Your task to perform on an android device: turn on javascript in the chrome app Image 0: 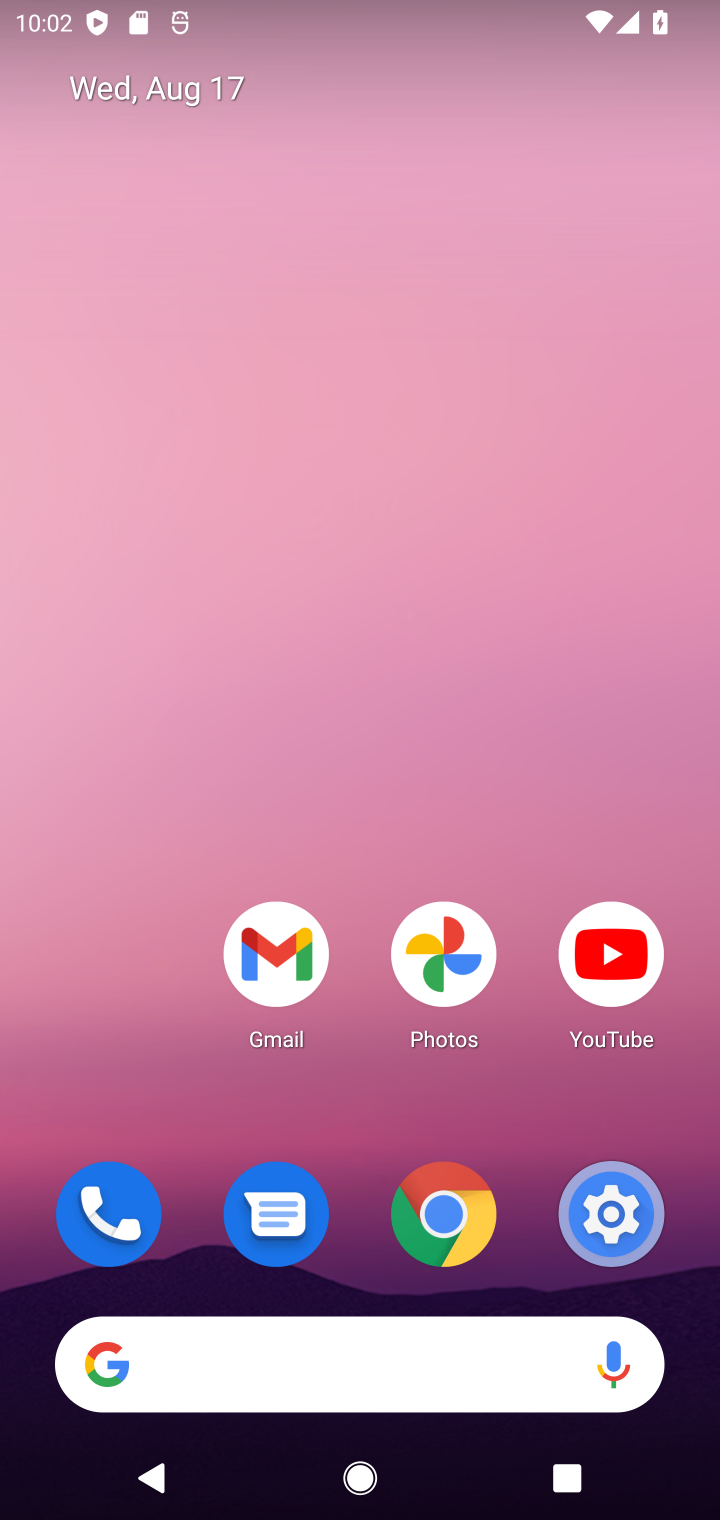
Step 0: click (447, 1220)
Your task to perform on an android device: turn on javascript in the chrome app Image 1: 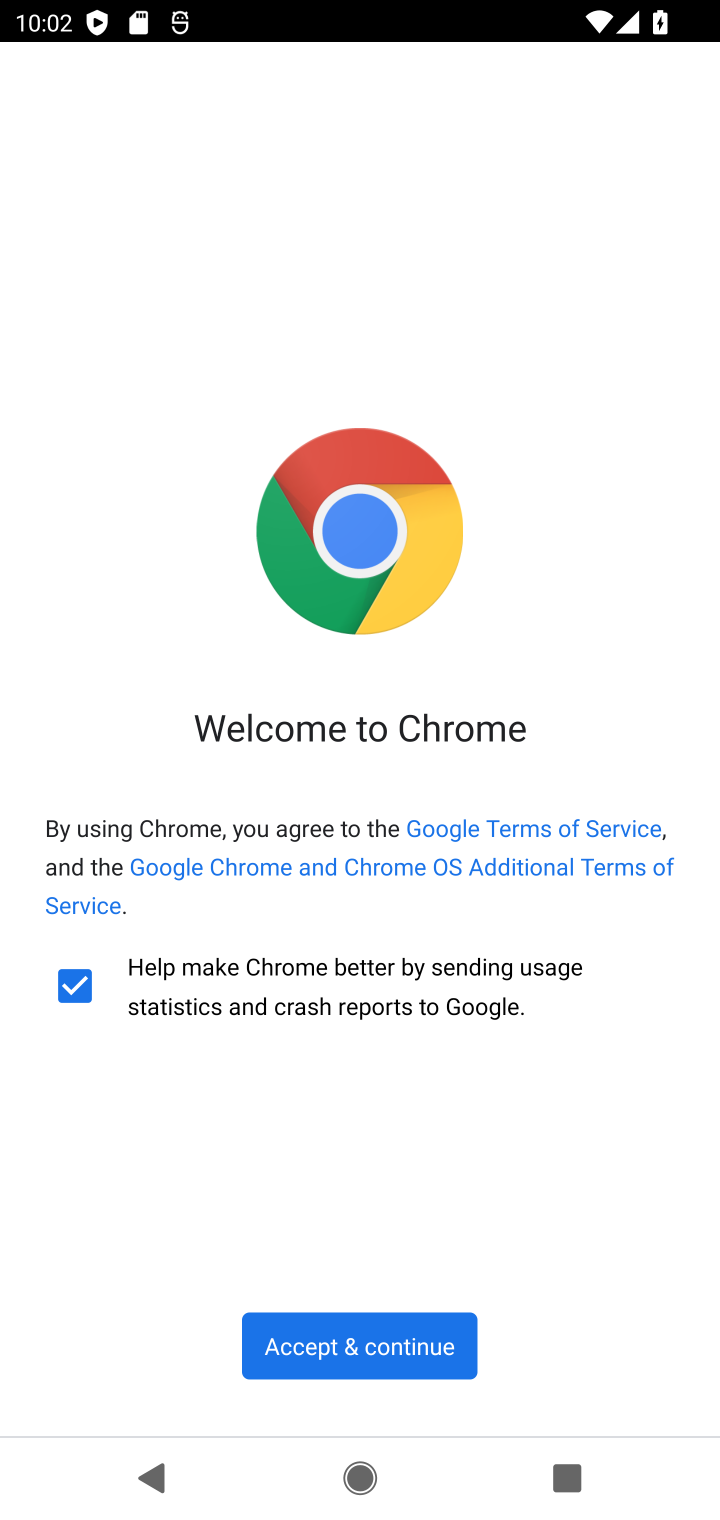
Step 1: click (364, 1340)
Your task to perform on an android device: turn on javascript in the chrome app Image 2: 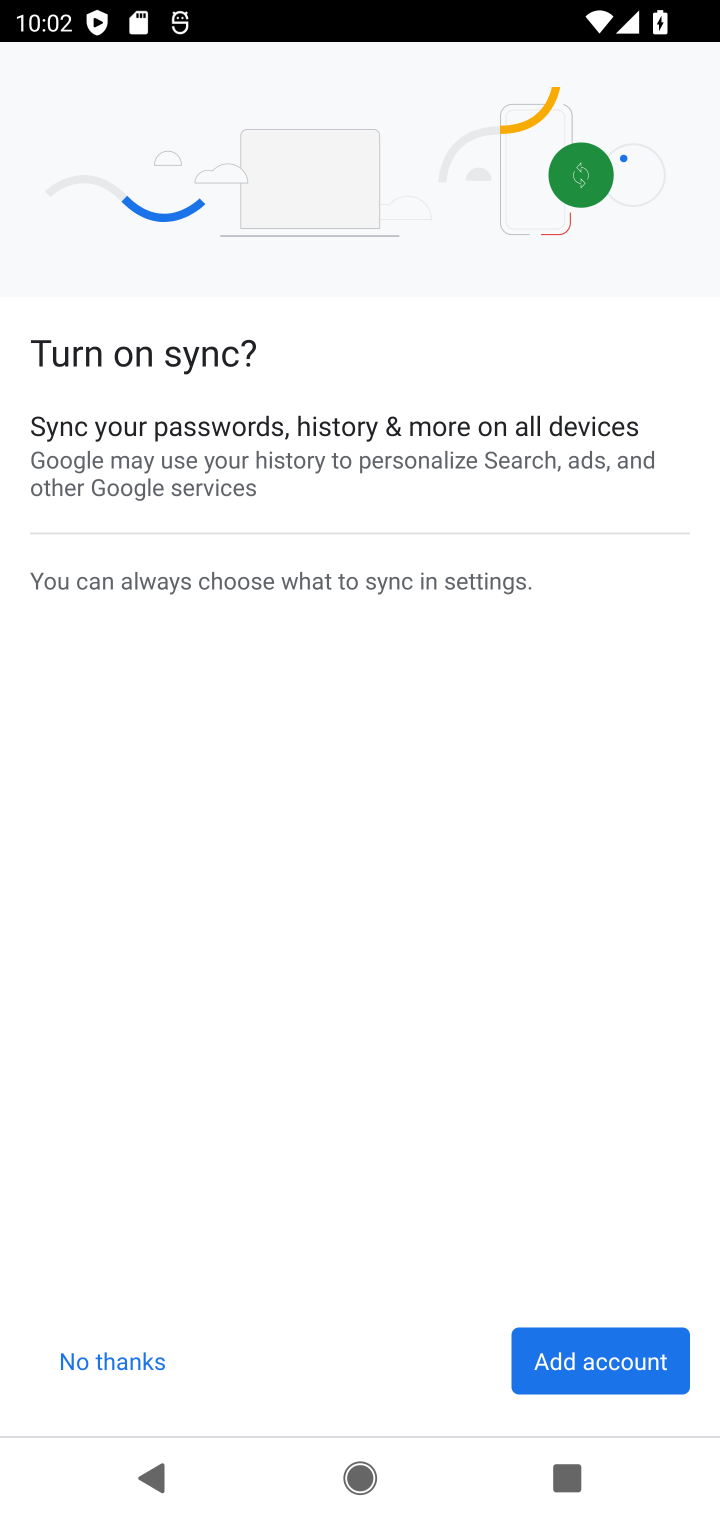
Step 2: click (592, 1350)
Your task to perform on an android device: turn on javascript in the chrome app Image 3: 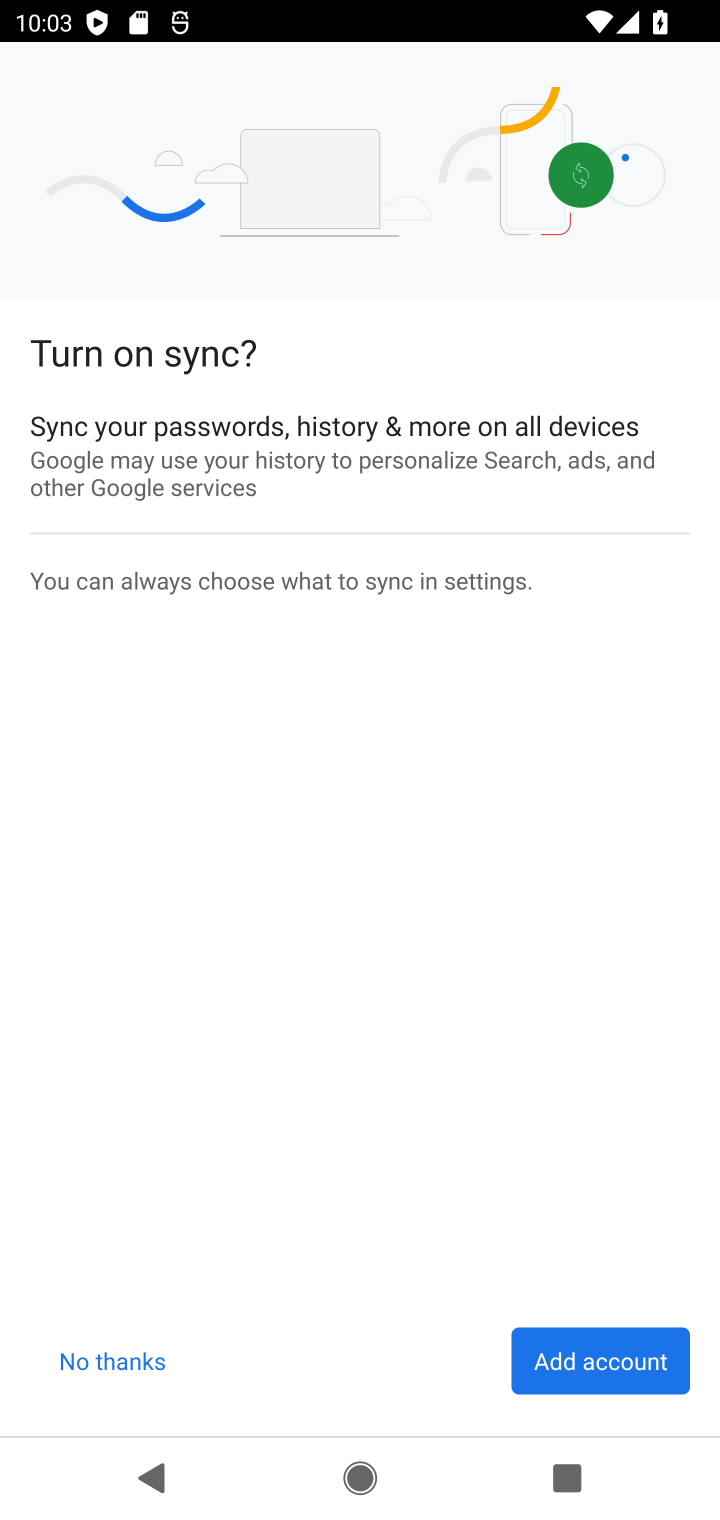
Step 3: click (581, 1365)
Your task to perform on an android device: turn on javascript in the chrome app Image 4: 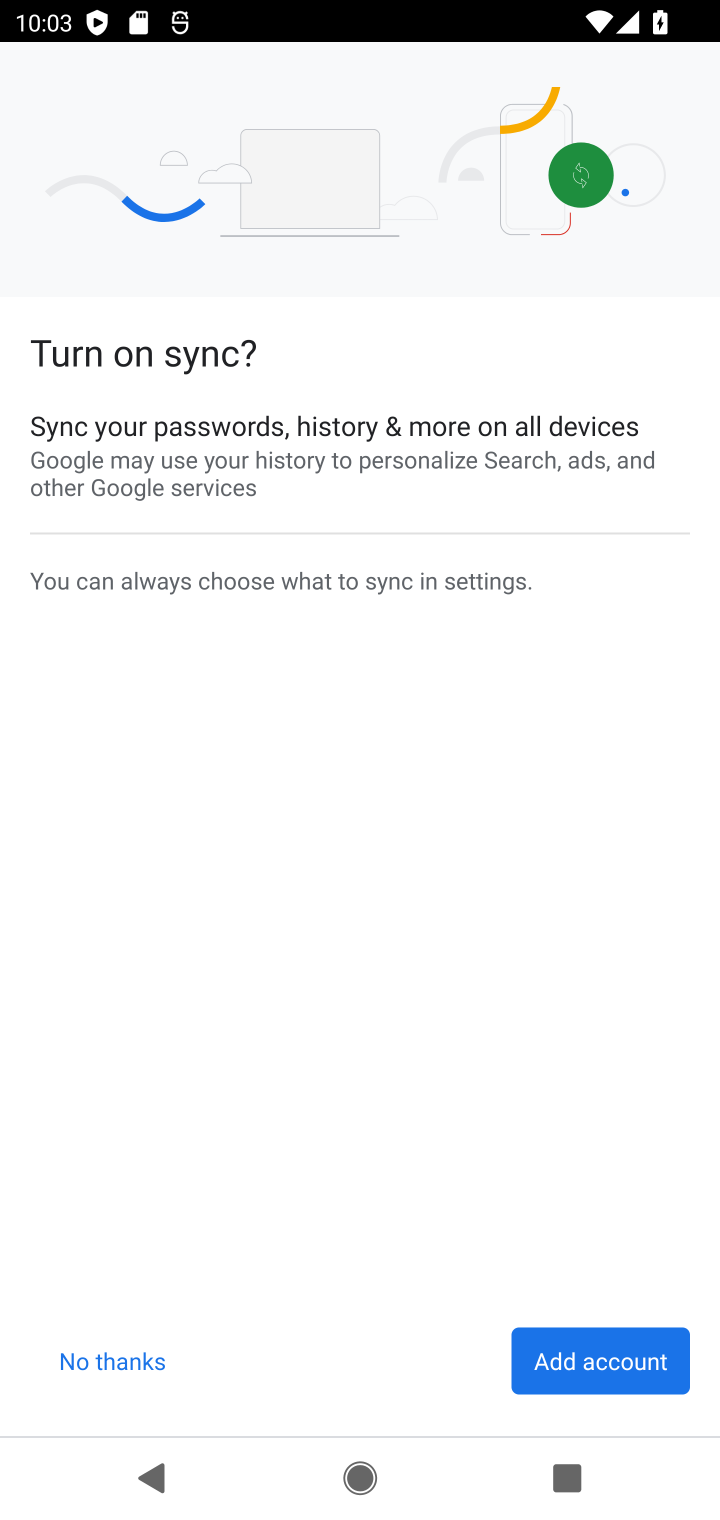
Step 4: click (130, 1371)
Your task to perform on an android device: turn on javascript in the chrome app Image 5: 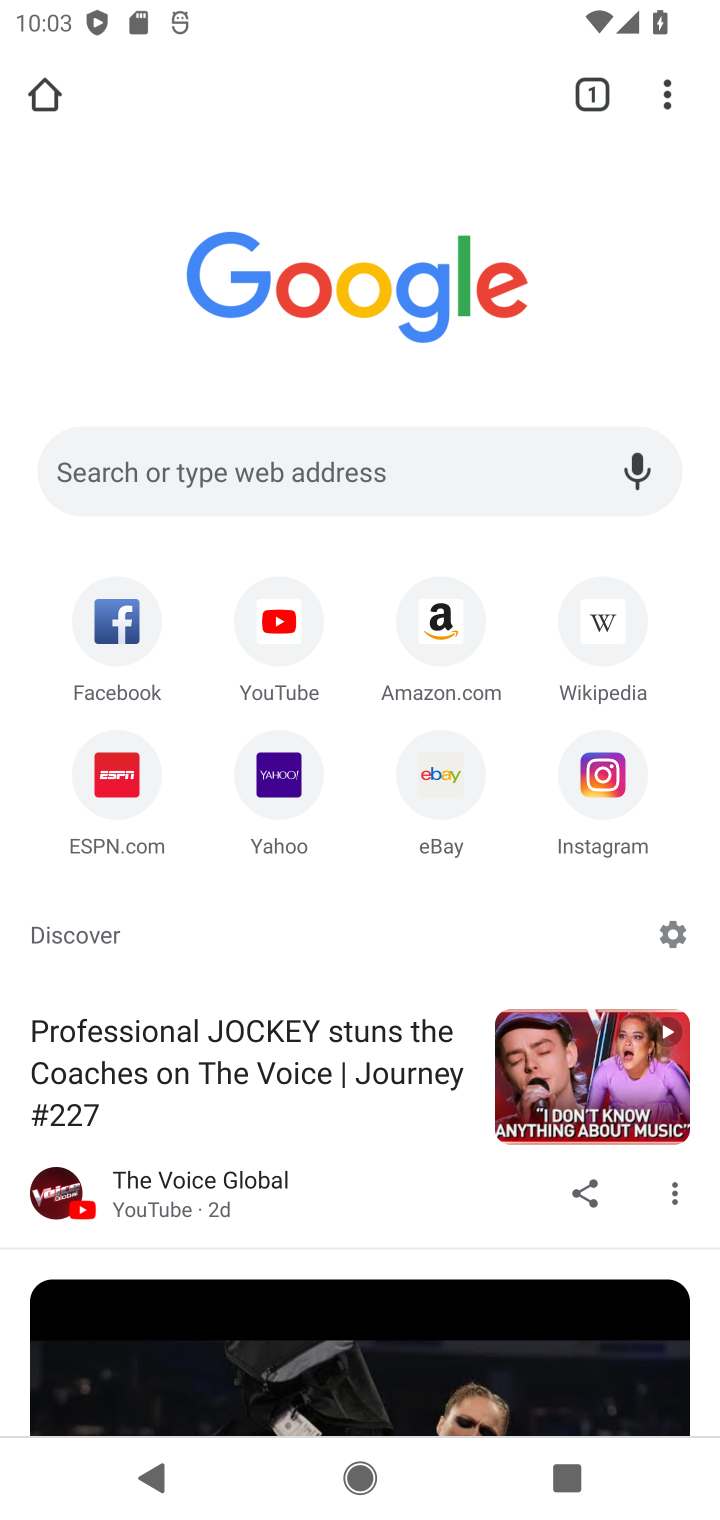
Step 5: click (685, 102)
Your task to perform on an android device: turn on javascript in the chrome app Image 6: 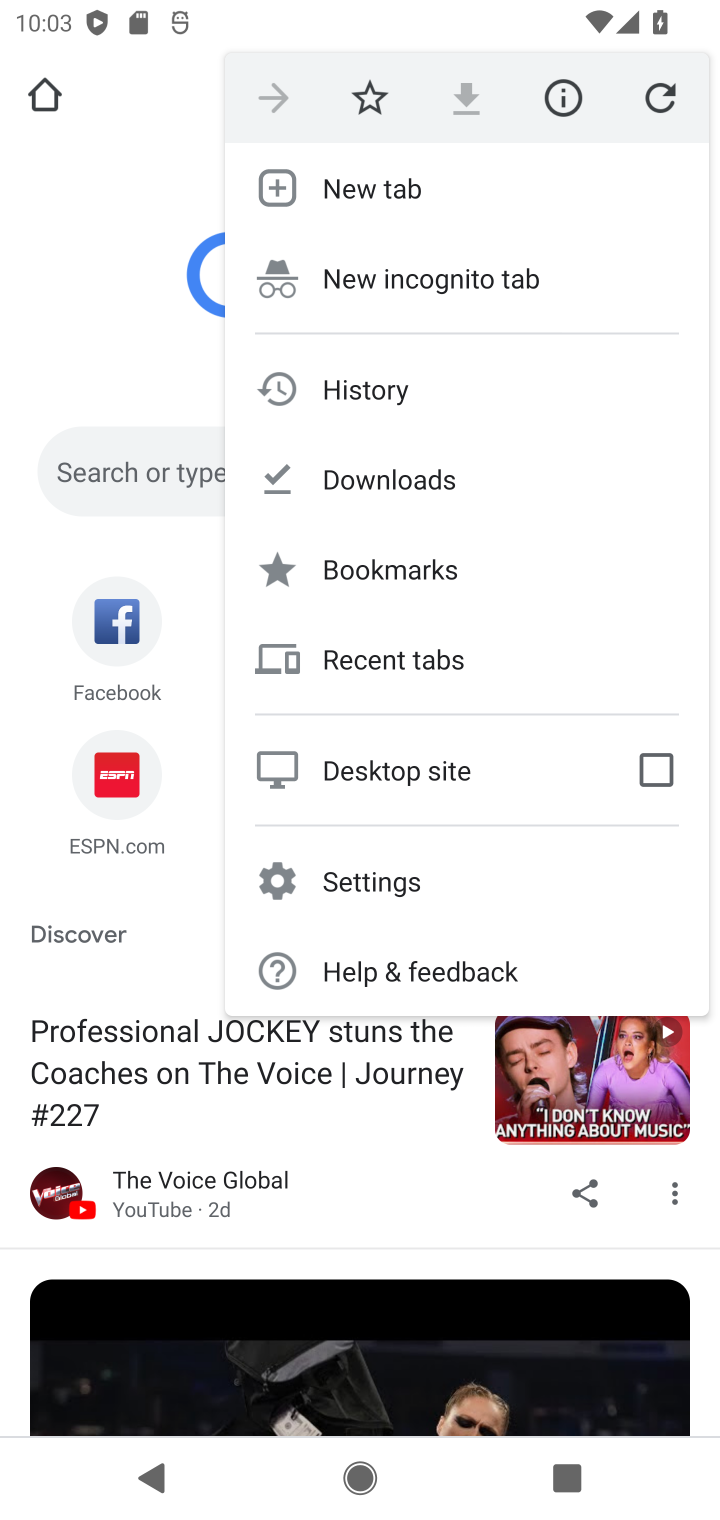
Step 6: click (371, 880)
Your task to perform on an android device: turn on javascript in the chrome app Image 7: 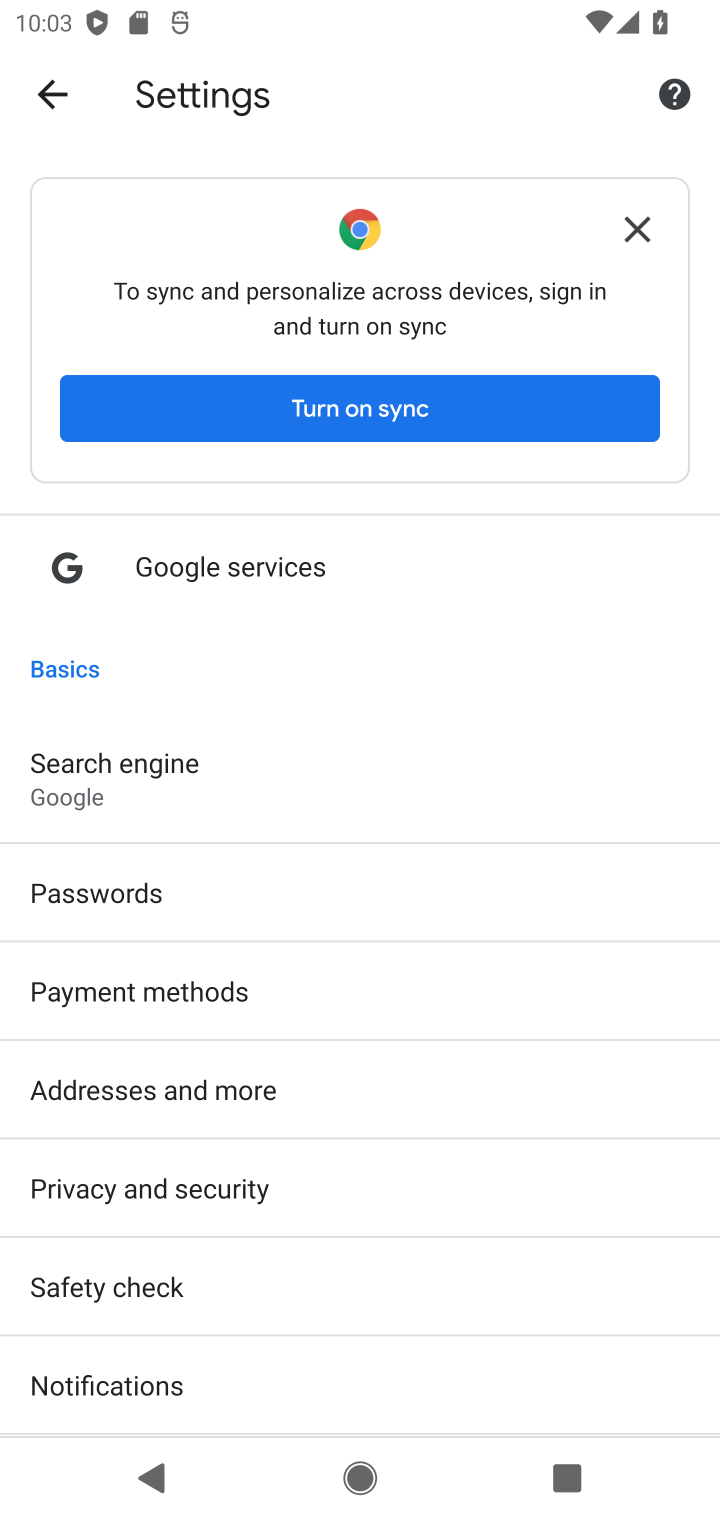
Step 7: drag from (193, 1328) to (290, 1125)
Your task to perform on an android device: turn on javascript in the chrome app Image 8: 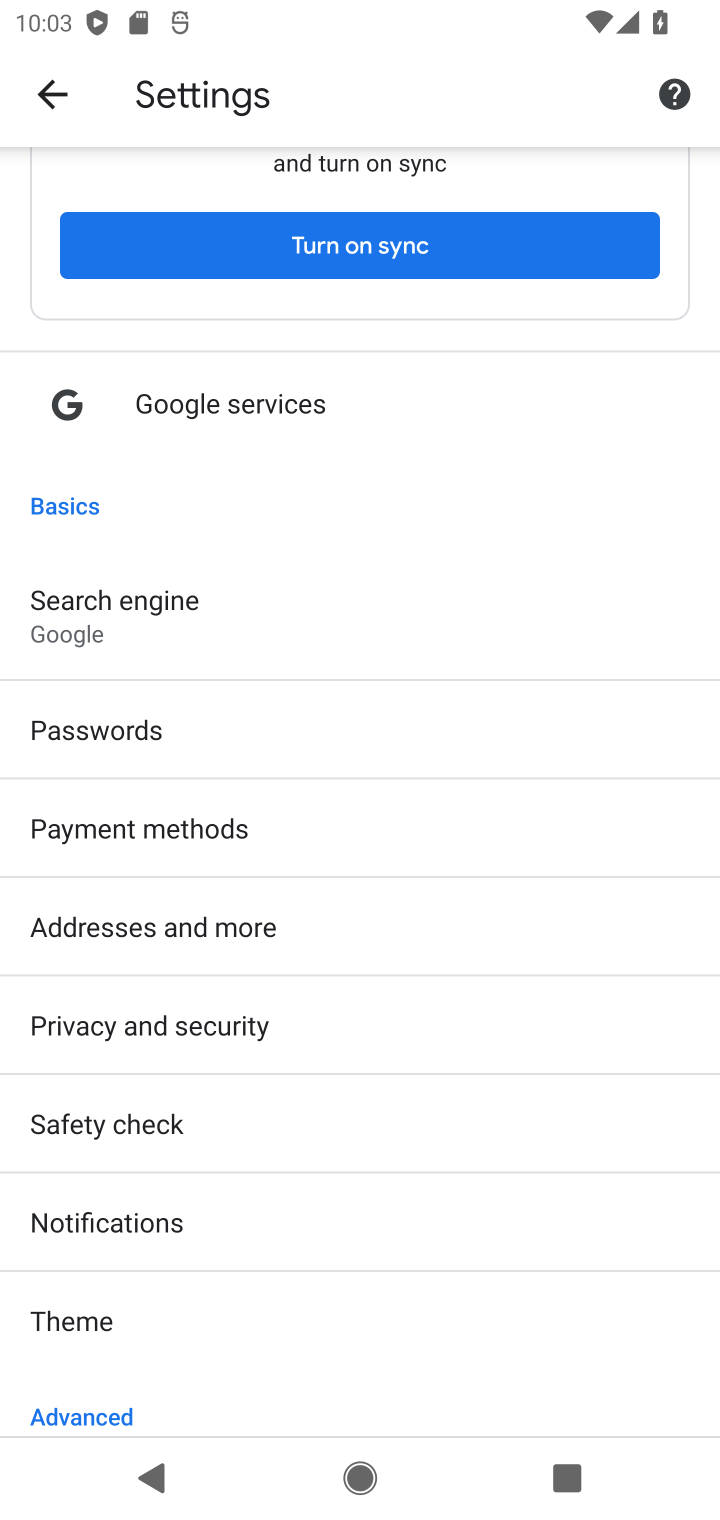
Step 8: drag from (290, 1278) to (411, 1047)
Your task to perform on an android device: turn on javascript in the chrome app Image 9: 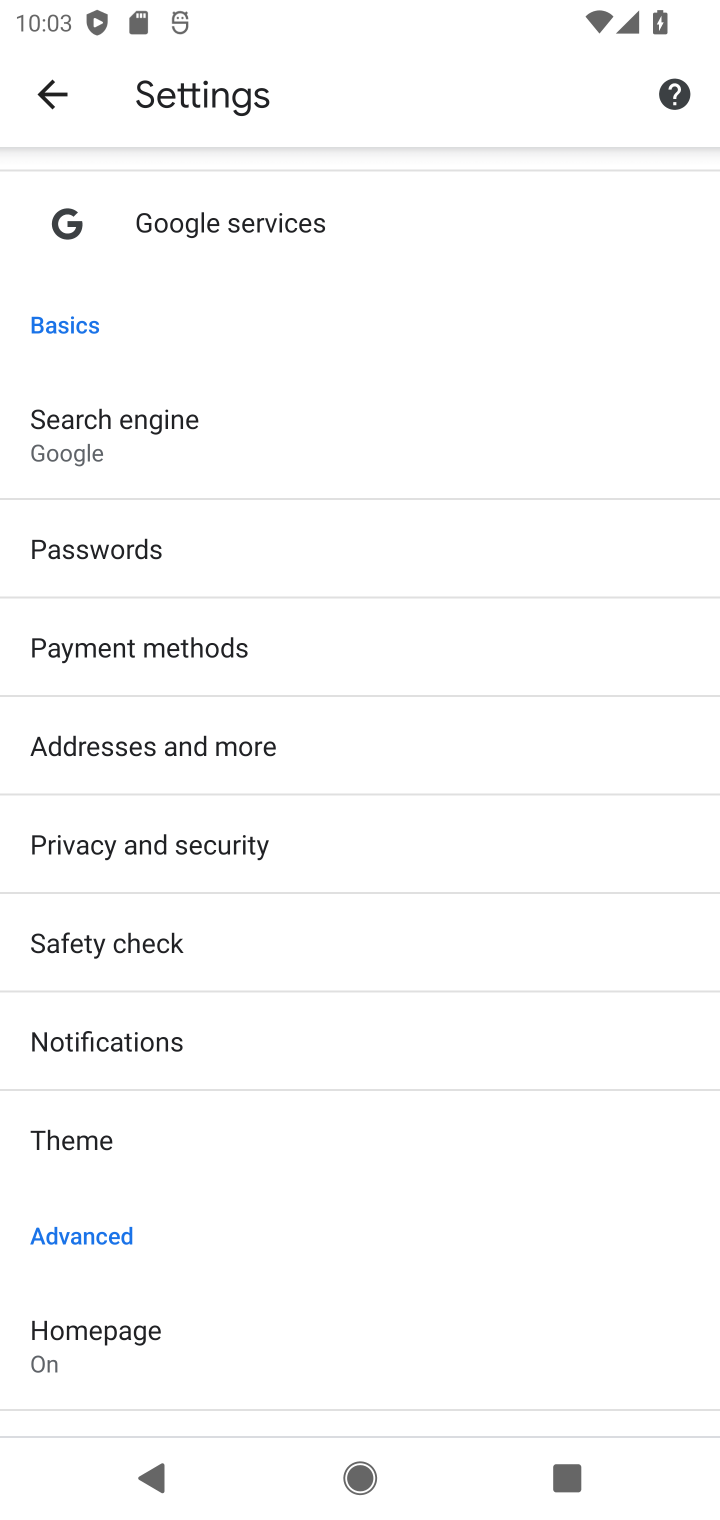
Step 9: drag from (245, 1284) to (471, 1006)
Your task to perform on an android device: turn on javascript in the chrome app Image 10: 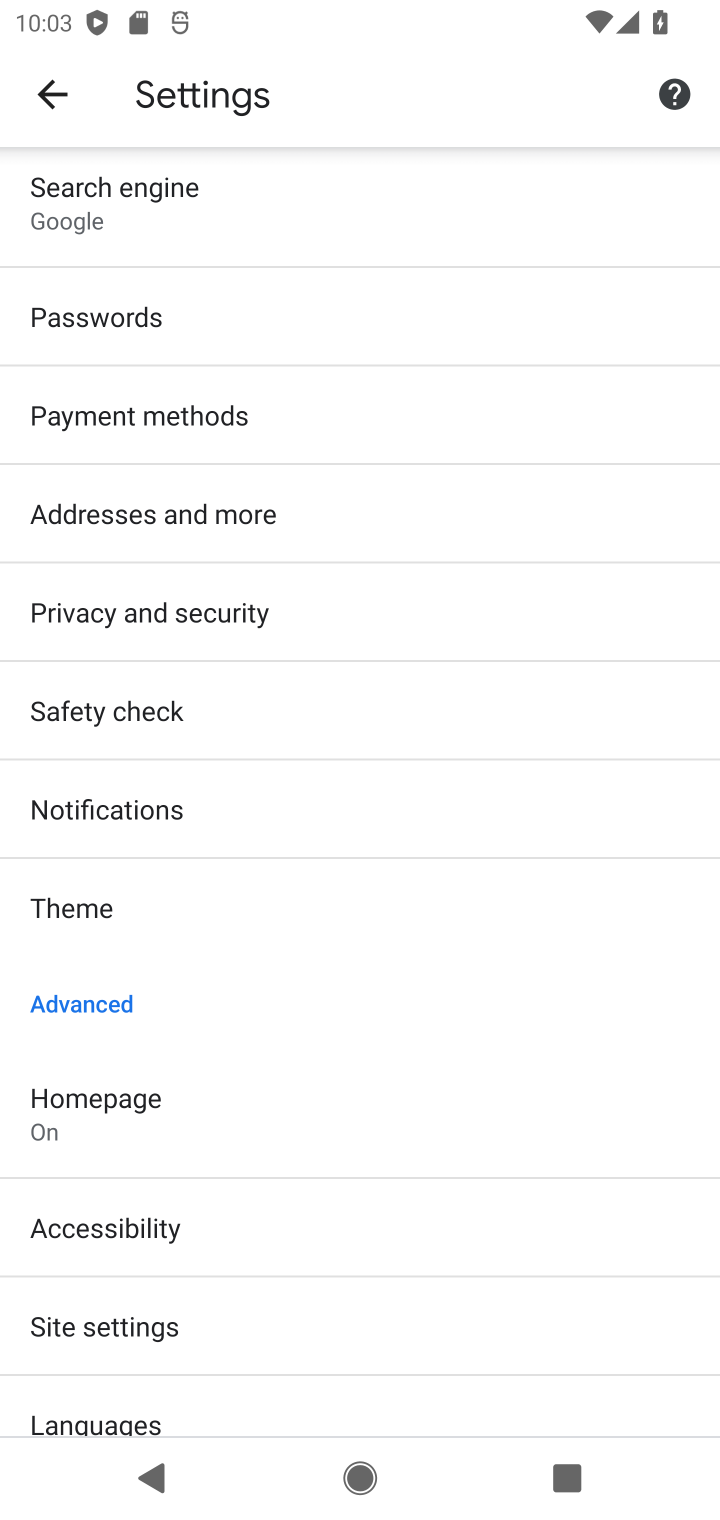
Step 10: click (167, 1333)
Your task to perform on an android device: turn on javascript in the chrome app Image 11: 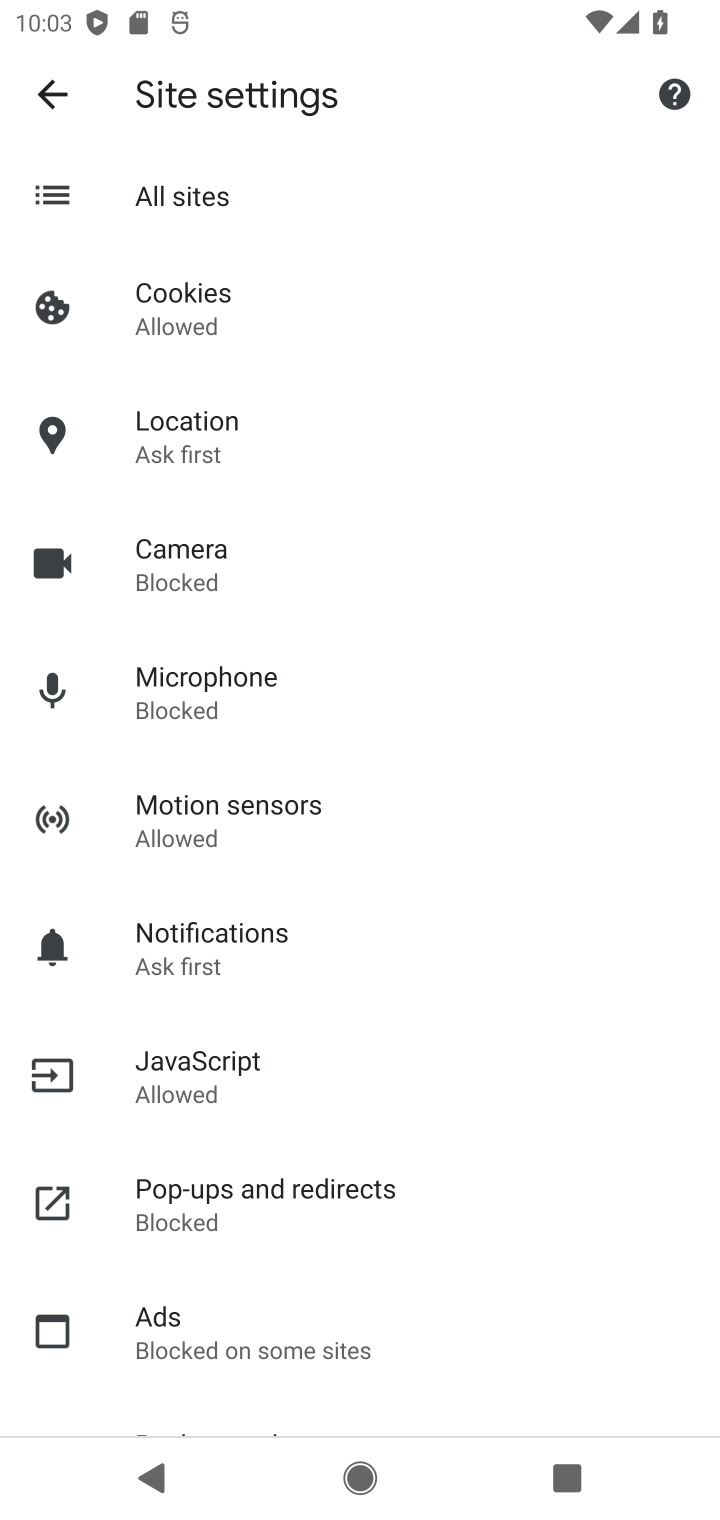
Step 11: click (269, 1092)
Your task to perform on an android device: turn on javascript in the chrome app Image 12: 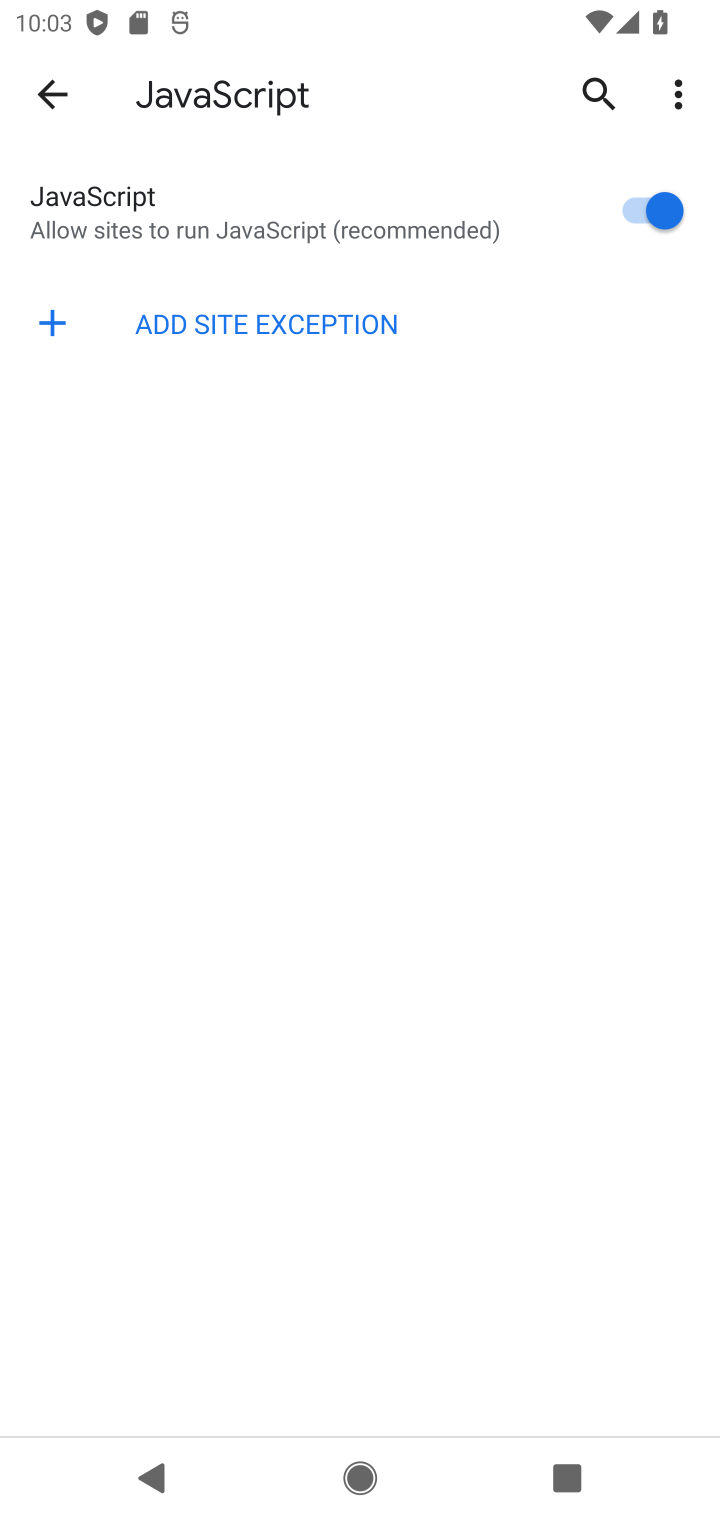
Step 12: task complete